Your task to perform on an android device: Set the phone to "Do not disturb". Image 0: 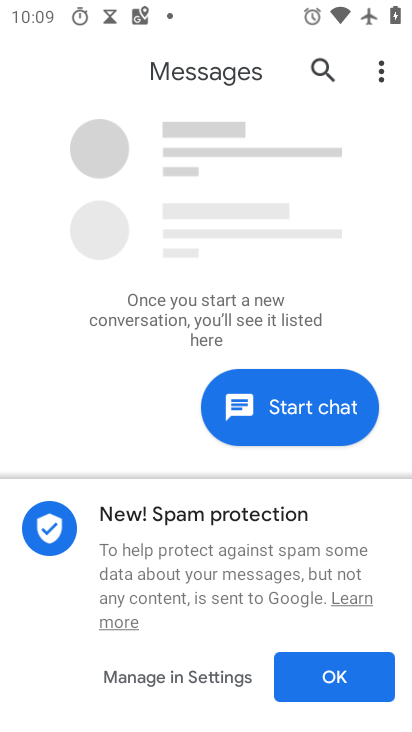
Step 0: press home button
Your task to perform on an android device: Set the phone to "Do not disturb". Image 1: 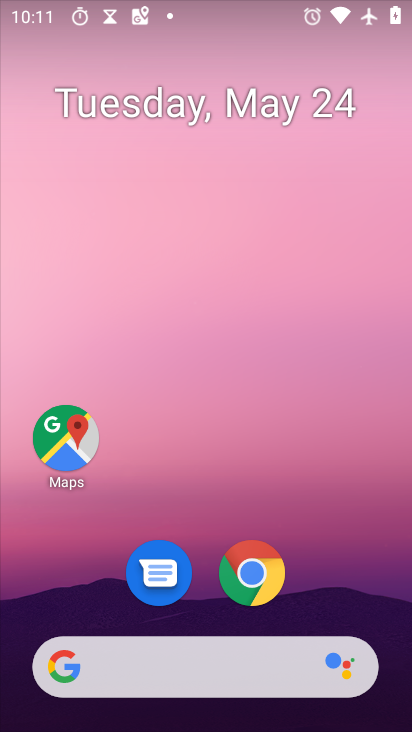
Step 1: drag from (385, 561) to (390, 64)
Your task to perform on an android device: Set the phone to "Do not disturb". Image 2: 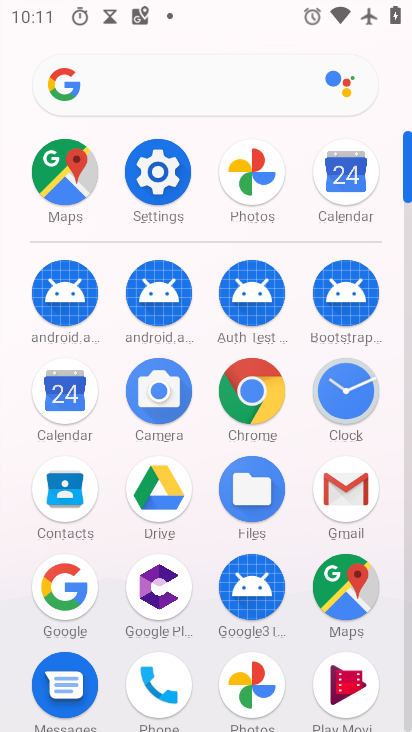
Step 2: click (163, 174)
Your task to perform on an android device: Set the phone to "Do not disturb". Image 3: 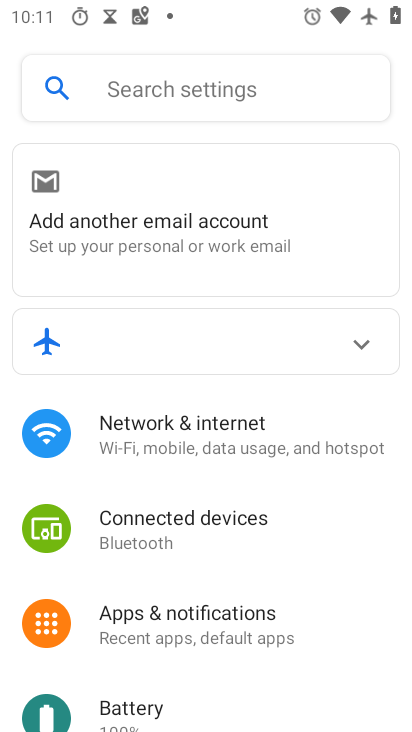
Step 3: drag from (167, 600) to (230, 255)
Your task to perform on an android device: Set the phone to "Do not disturb". Image 4: 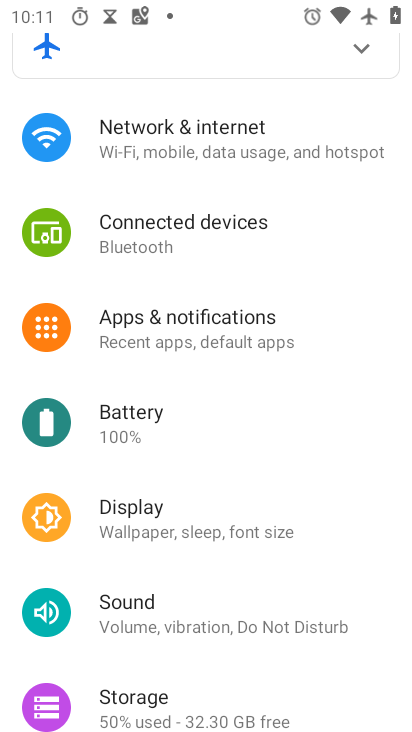
Step 4: click (129, 597)
Your task to perform on an android device: Set the phone to "Do not disturb". Image 5: 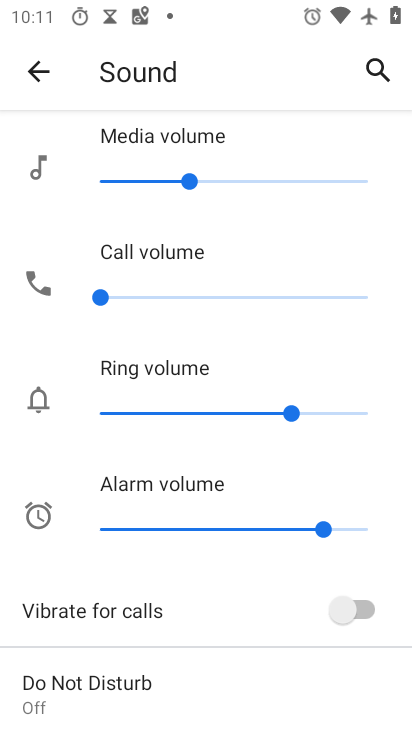
Step 5: task complete